Your task to perform on an android device: choose inbox layout in the gmail app Image 0: 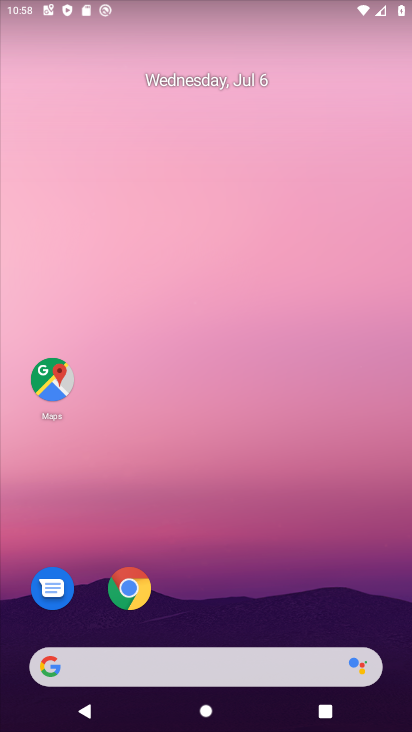
Step 0: drag from (269, 617) to (272, 180)
Your task to perform on an android device: choose inbox layout in the gmail app Image 1: 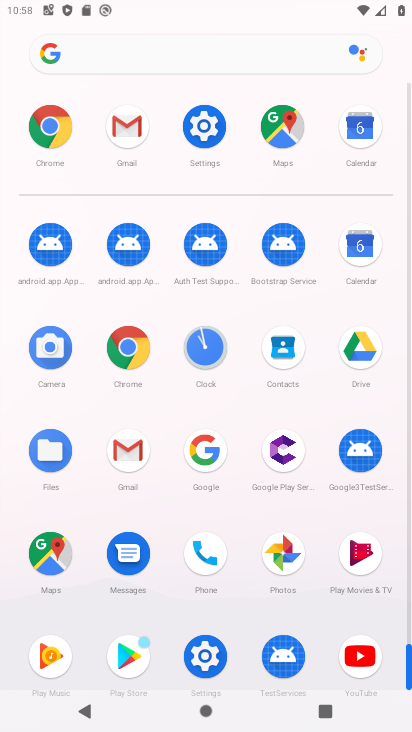
Step 1: click (122, 118)
Your task to perform on an android device: choose inbox layout in the gmail app Image 2: 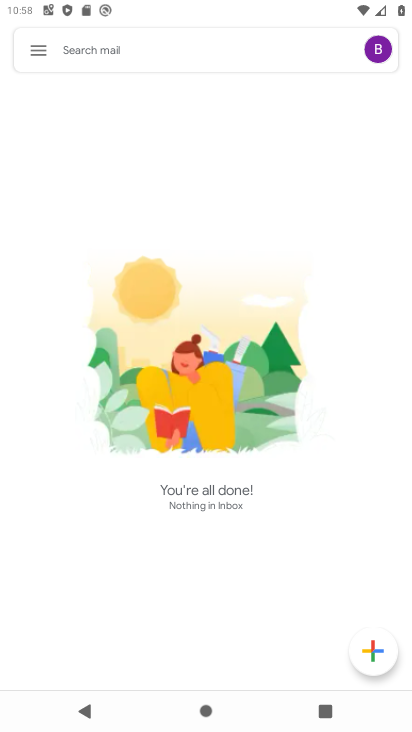
Step 2: click (43, 42)
Your task to perform on an android device: choose inbox layout in the gmail app Image 3: 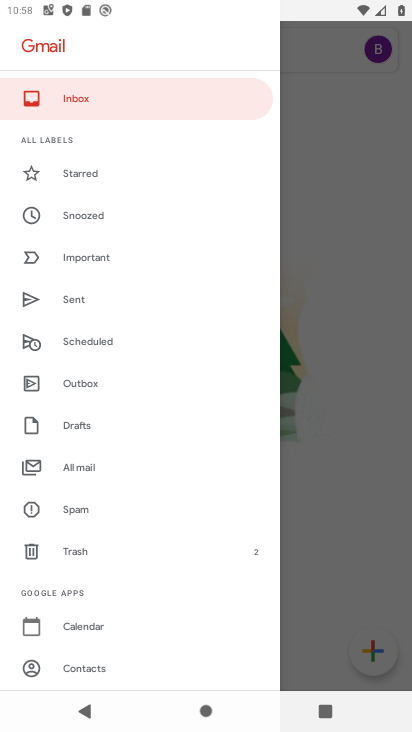
Step 3: click (96, 94)
Your task to perform on an android device: choose inbox layout in the gmail app Image 4: 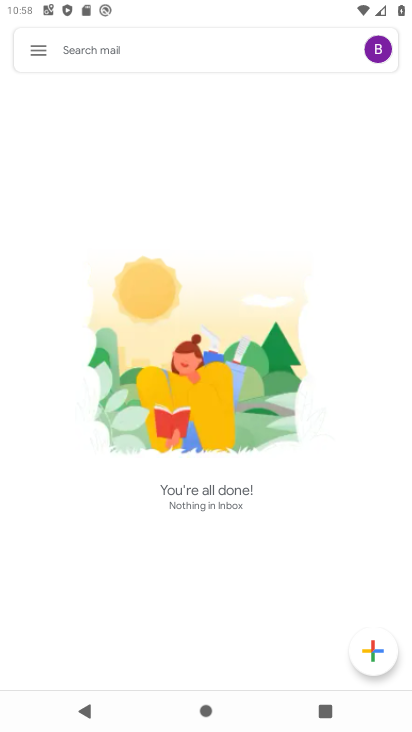
Step 4: task complete